Your task to perform on an android device: turn pop-ups on in chrome Image 0: 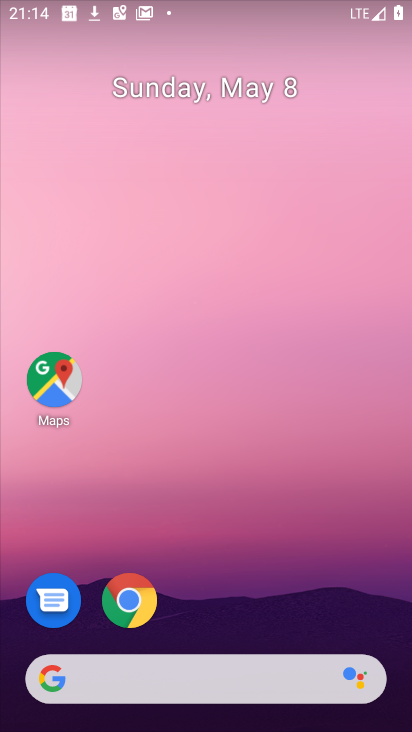
Step 0: drag from (258, 690) to (233, 295)
Your task to perform on an android device: turn pop-ups on in chrome Image 1: 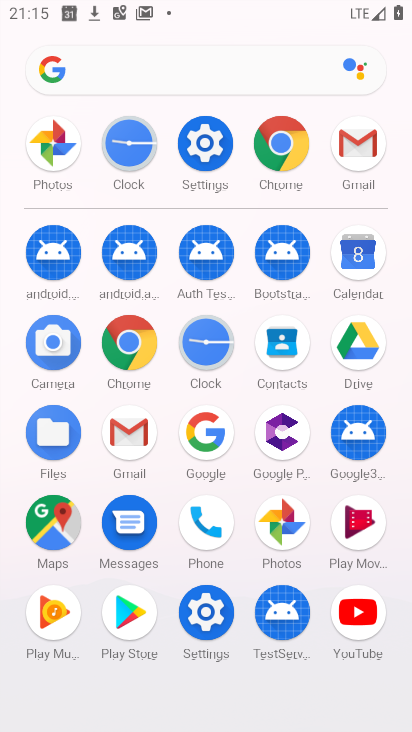
Step 1: click (147, 334)
Your task to perform on an android device: turn pop-ups on in chrome Image 2: 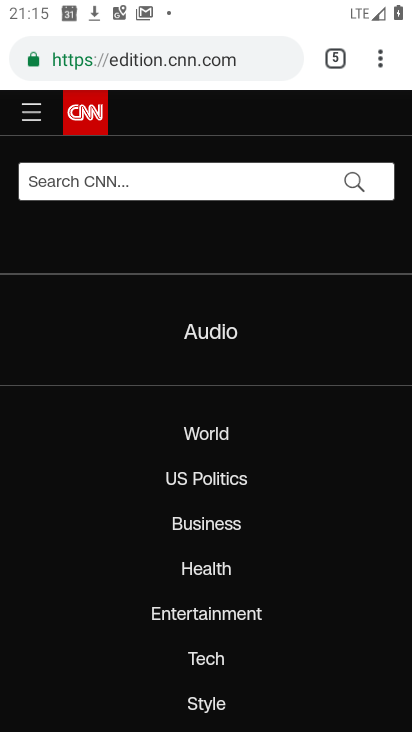
Step 2: click (378, 74)
Your task to perform on an android device: turn pop-ups on in chrome Image 3: 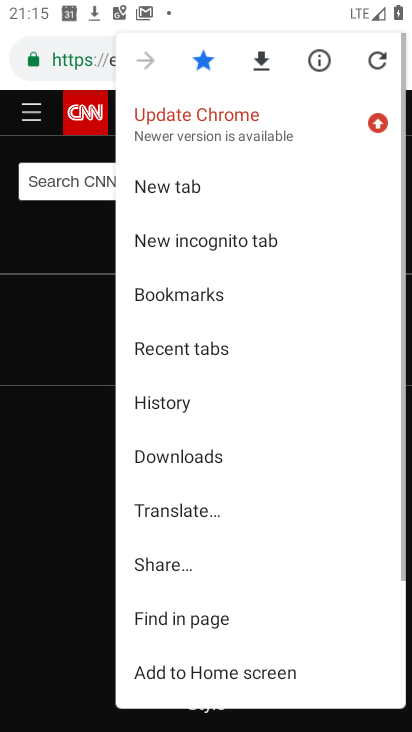
Step 3: drag from (193, 565) to (223, 492)
Your task to perform on an android device: turn pop-ups on in chrome Image 4: 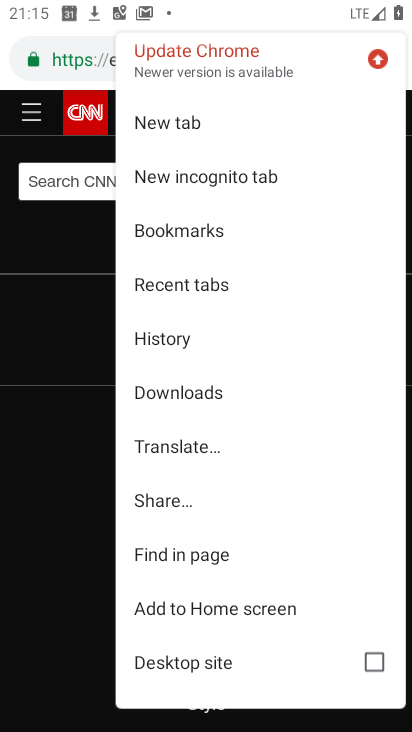
Step 4: drag from (213, 609) to (246, 507)
Your task to perform on an android device: turn pop-ups on in chrome Image 5: 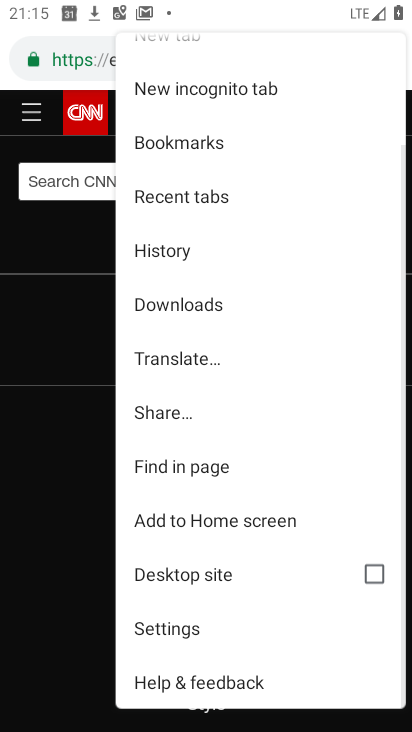
Step 5: click (180, 623)
Your task to perform on an android device: turn pop-ups on in chrome Image 6: 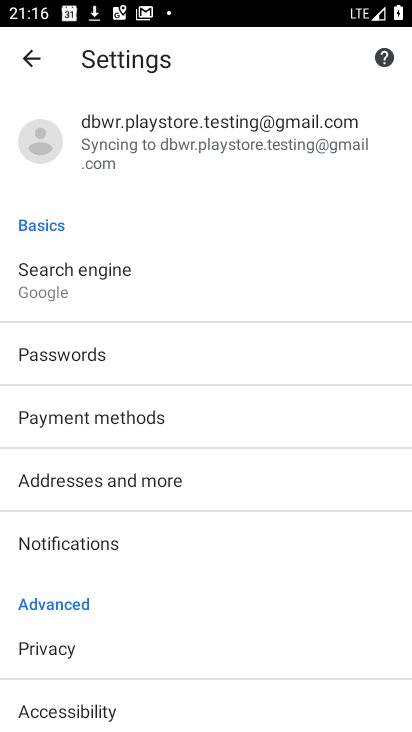
Step 6: drag from (158, 661) to (192, 309)
Your task to perform on an android device: turn pop-ups on in chrome Image 7: 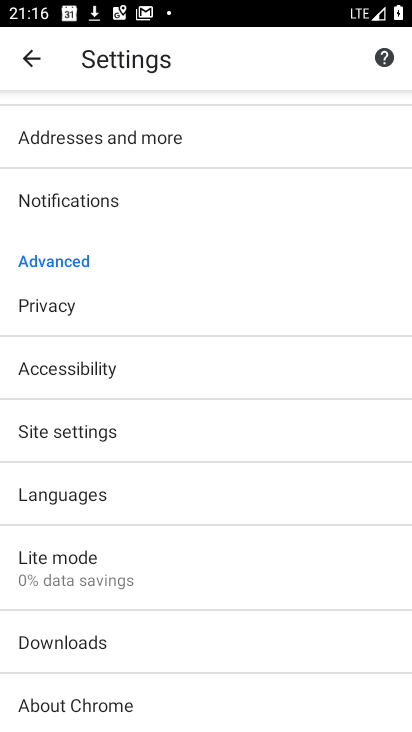
Step 7: click (100, 445)
Your task to perform on an android device: turn pop-ups on in chrome Image 8: 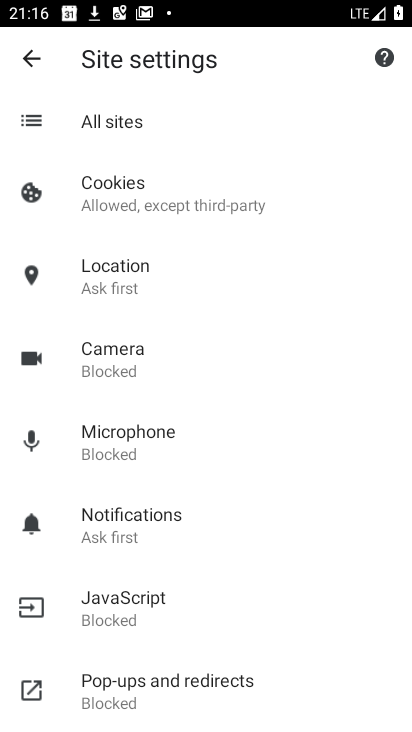
Step 8: click (137, 691)
Your task to perform on an android device: turn pop-ups on in chrome Image 9: 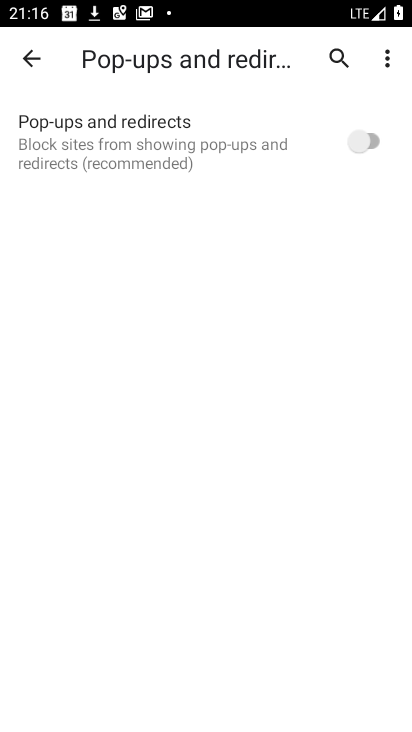
Step 9: click (282, 135)
Your task to perform on an android device: turn pop-ups on in chrome Image 10: 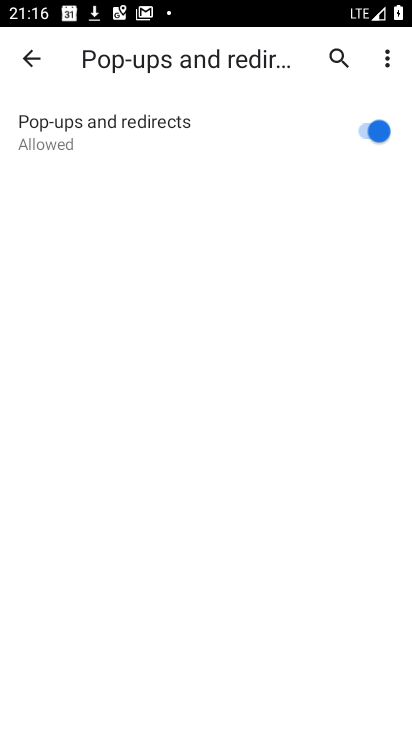
Step 10: task complete